Your task to perform on an android device: see tabs open on other devices in the chrome app Image 0: 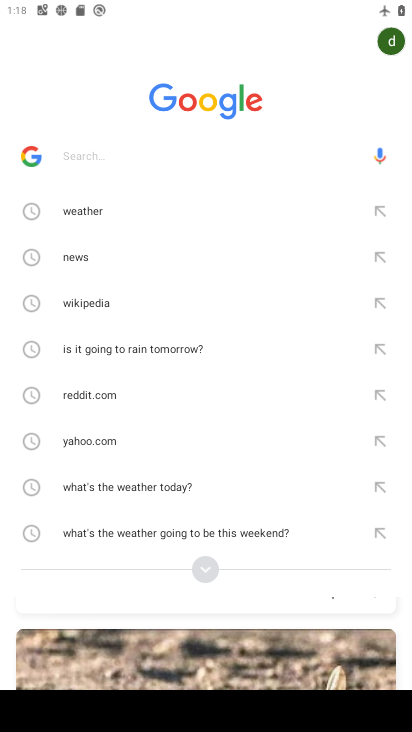
Step 0: press home button
Your task to perform on an android device: see tabs open on other devices in the chrome app Image 1: 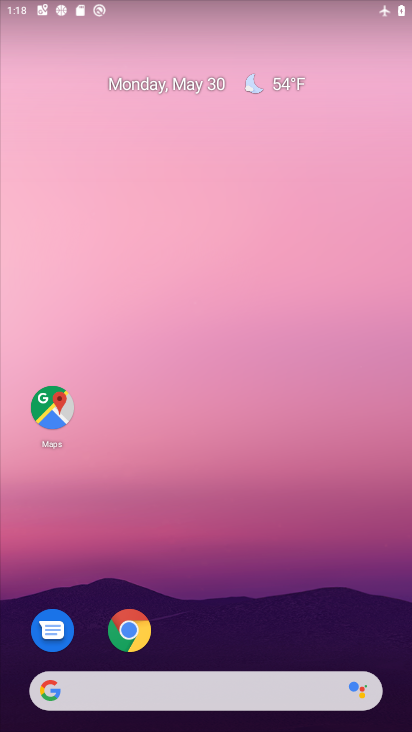
Step 1: click (132, 633)
Your task to perform on an android device: see tabs open on other devices in the chrome app Image 2: 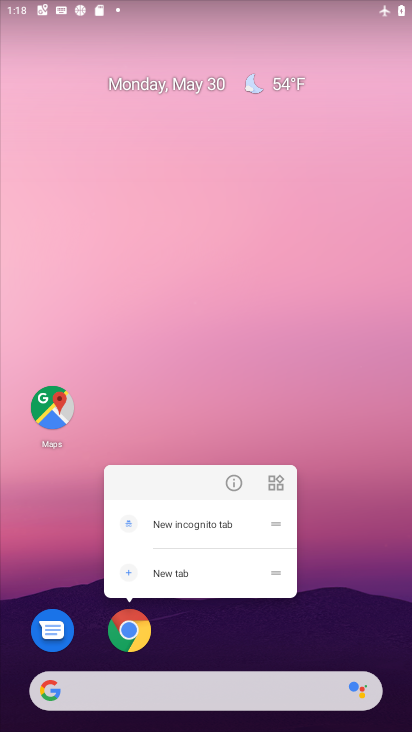
Step 2: click (132, 644)
Your task to perform on an android device: see tabs open on other devices in the chrome app Image 3: 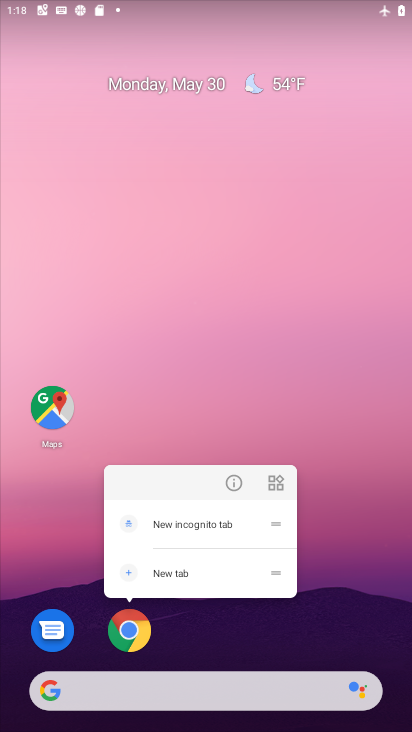
Step 3: click (131, 637)
Your task to perform on an android device: see tabs open on other devices in the chrome app Image 4: 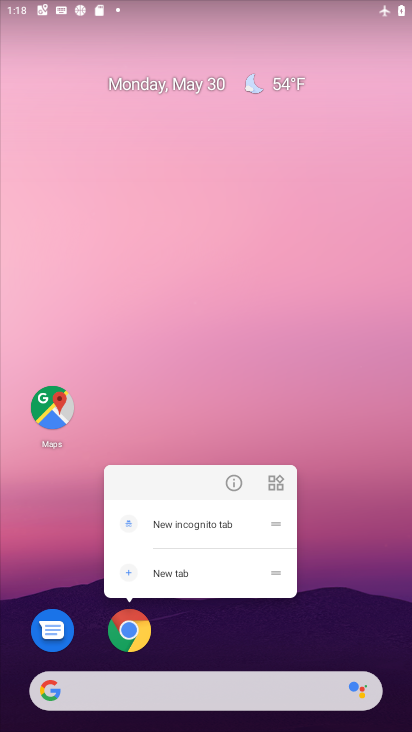
Step 4: click (134, 623)
Your task to perform on an android device: see tabs open on other devices in the chrome app Image 5: 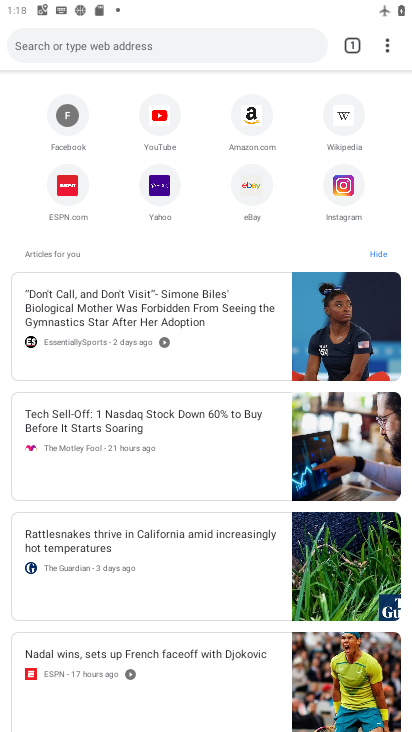
Step 5: task complete